Your task to perform on an android device: check storage Image 0: 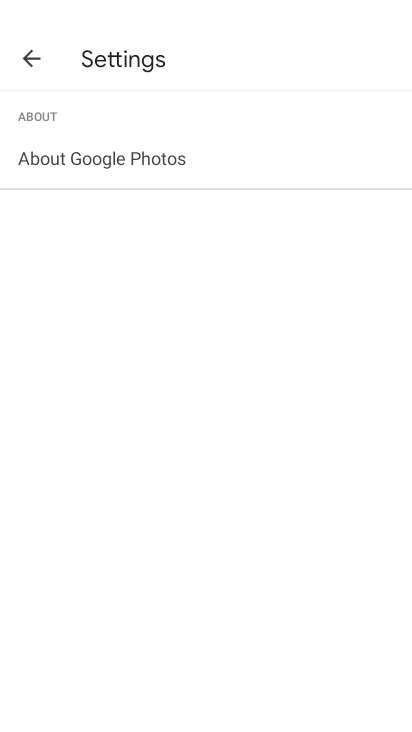
Step 0: press back button
Your task to perform on an android device: check storage Image 1: 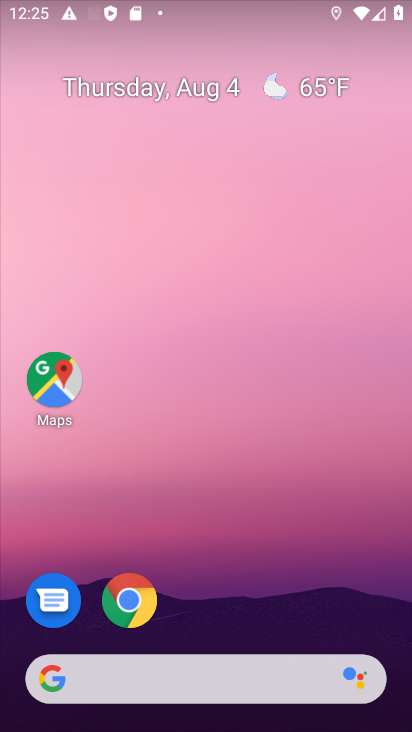
Step 1: click (128, 169)
Your task to perform on an android device: check storage Image 2: 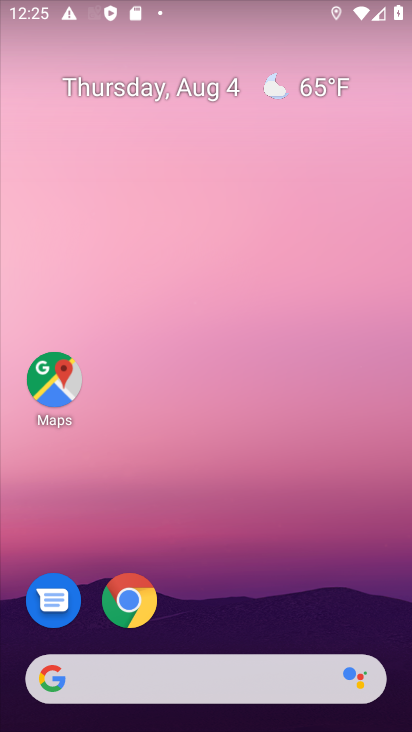
Step 2: drag from (265, 638) to (217, 8)
Your task to perform on an android device: check storage Image 3: 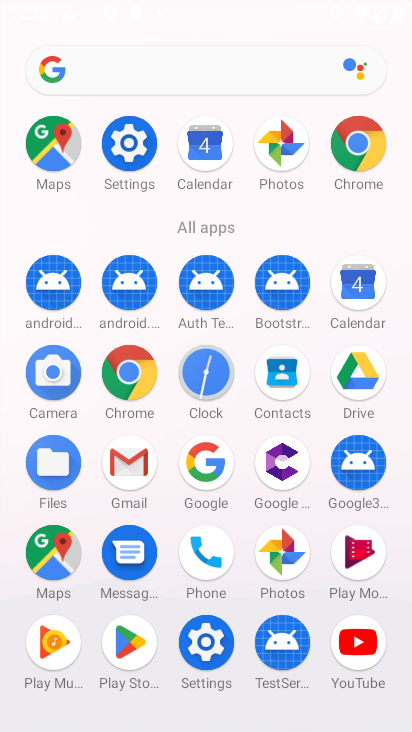
Step 3: click (138, 147)
Your task to perform on an android device: check storage Image 4: 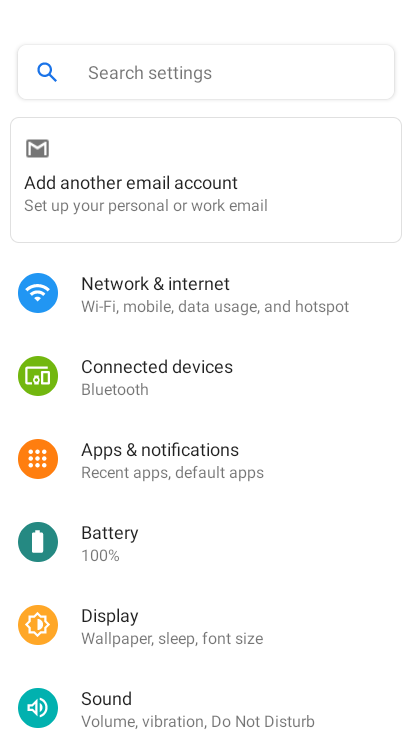
Step 4: drag from (193, 637) to (177, 38)
Your task to perform on an android device: check storage Image 5: 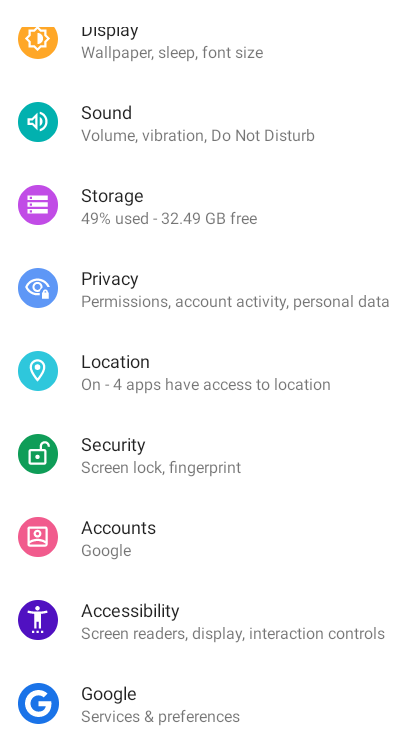
Step 5: drag from (76, 581) to (64, 306)
Your task to perform on an android device: check storage Image 6: 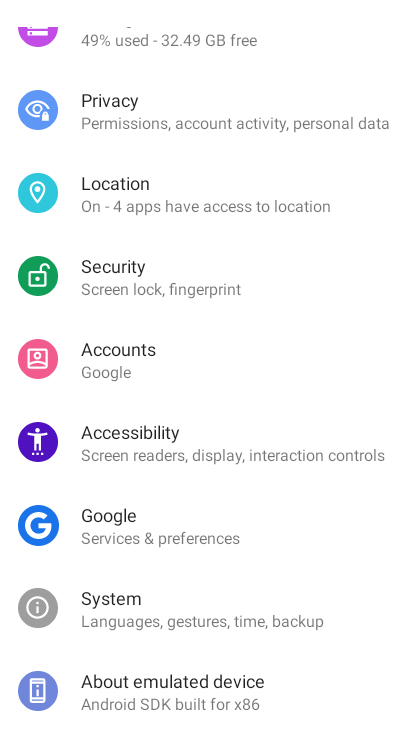
Step 6: drag from (95, 118) to (83, 471)
Your task to perform on an android device: check storage Image 7: 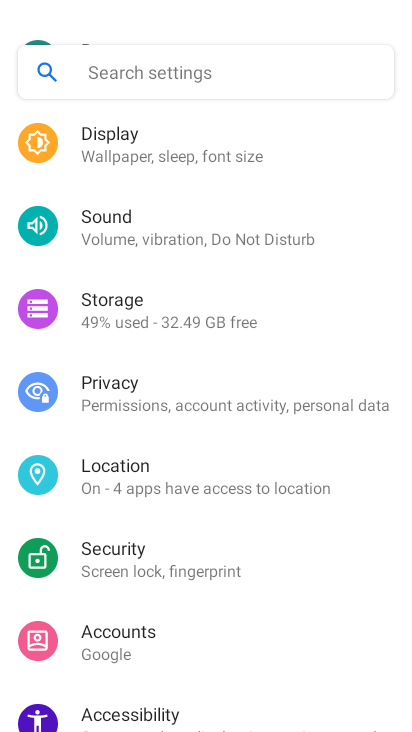
Step 7: click (121, 296)
Your task to perform on an android device: check storage Image 8: 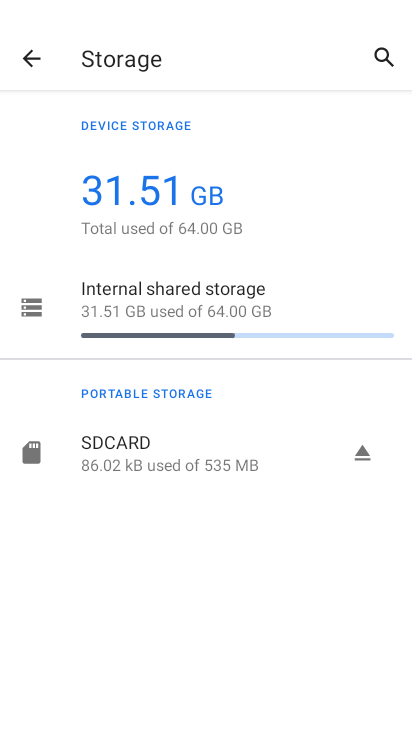
Step 8: click (121, 296)
Your task to perform on an android device: check storage Image 9: 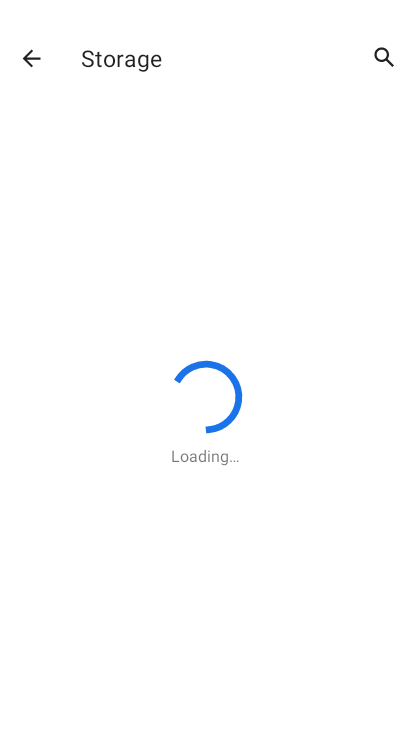
Step 9: task complete